Your task to perform on an android device: Go to Yahoo.com Image 0: 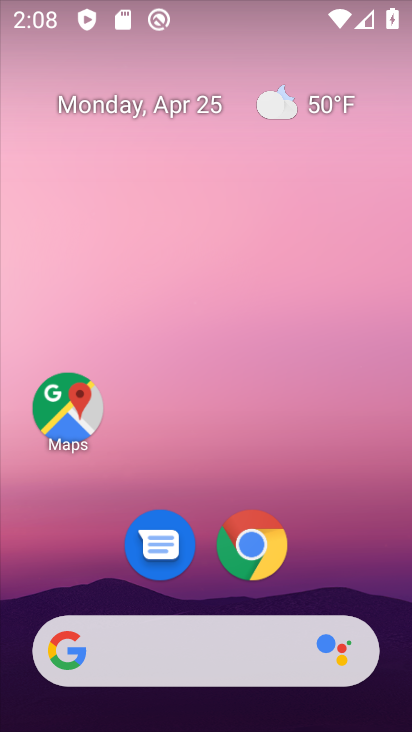
Step 0: click (266, 539)
Your task to perform on an android device: Go to Yahoo.com Image 1: 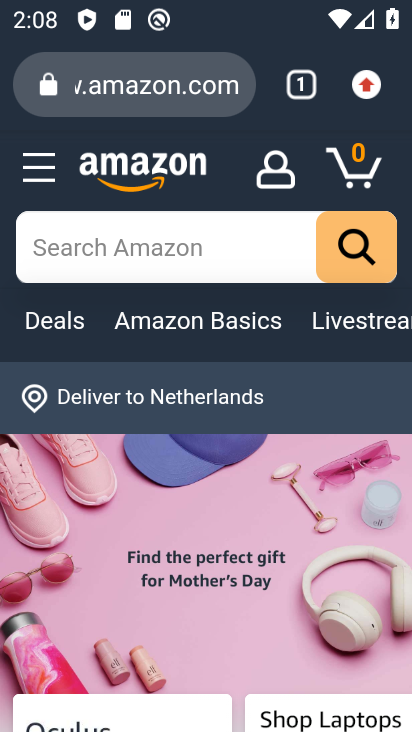
Step 1: click (307, 79)
Your task to perform on an android device: Go to Yahoo.com Image 2: 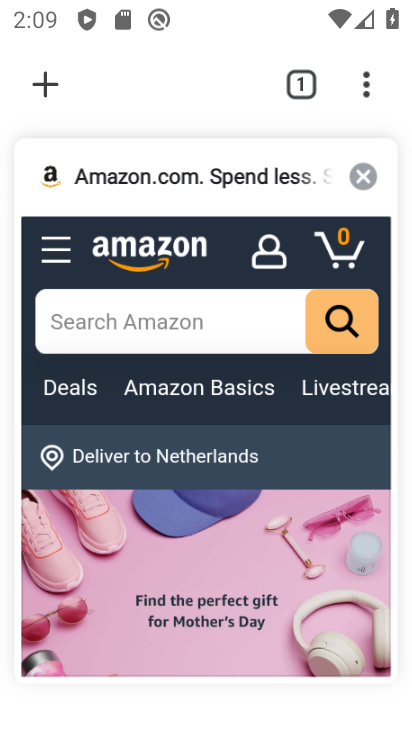
Step 2: click (46, 87)
Your task to perform on an android device: Go to Yahoo.com Image 3: 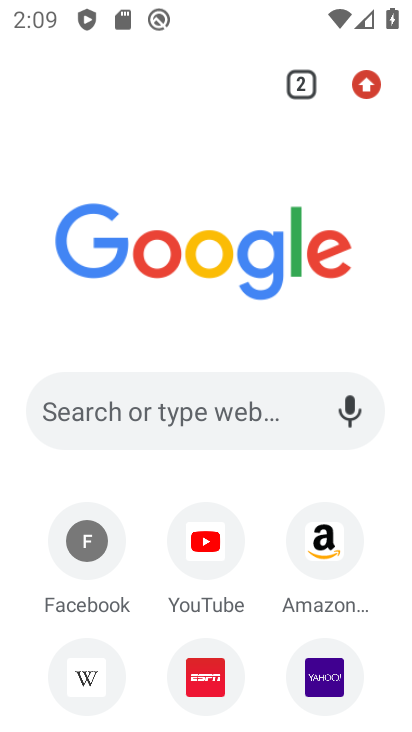
Step 3: click (323, 685)
Your task to perform on an android device: Go to Yahoo.com Image 4: 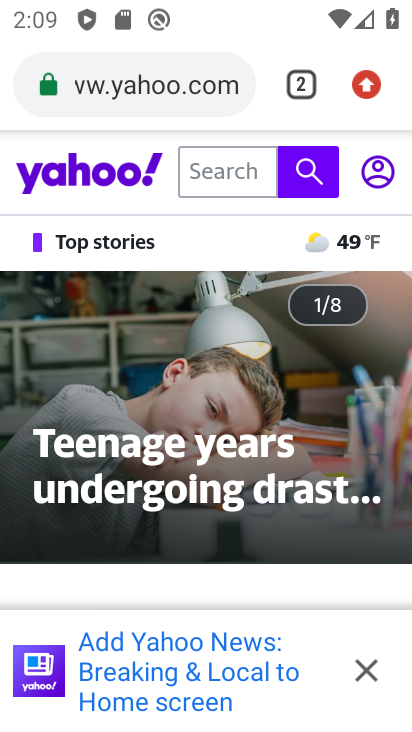
Step 4: task complete